Your task to perform on an android device: Open CNN.com Image 0: 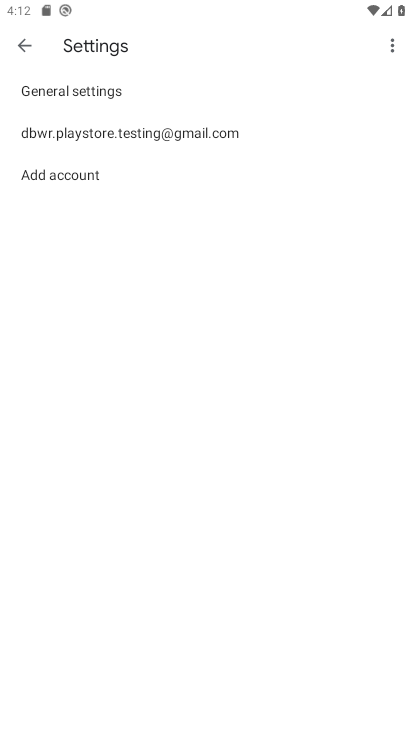
Step 0: press home button
Your task to perform on an android device: Open CNN.com Image 1: 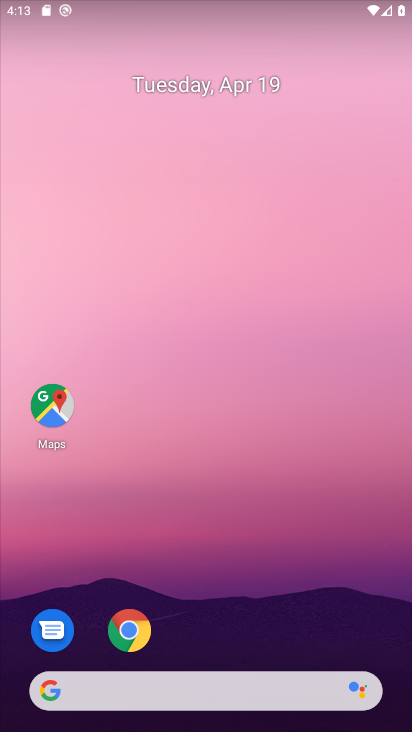
Step 1: click (120, 631)
Your task to perform on an android device: Open CNN.com Image 2: 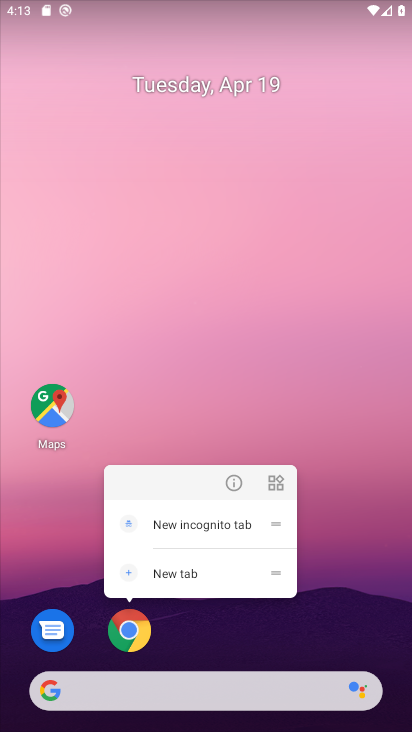
Step 2: click (131, 637)
Your task to perform on an android device: Open CNN.com Image 3: 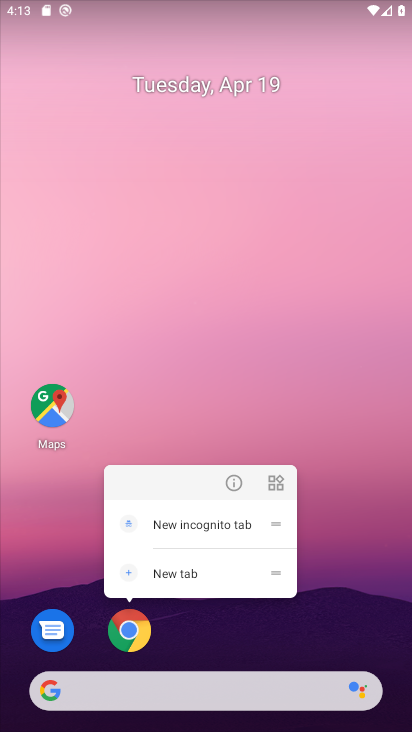
Step 3: click (149, 627)
Your task to perform on an android device: Open CNN.com Image 4: 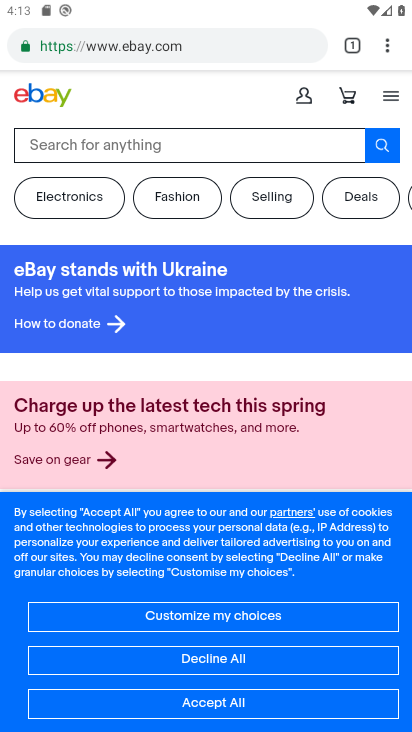
Step 4: click (131, 44)
Your task to perform on an android device: Open CNN.com Image 5: 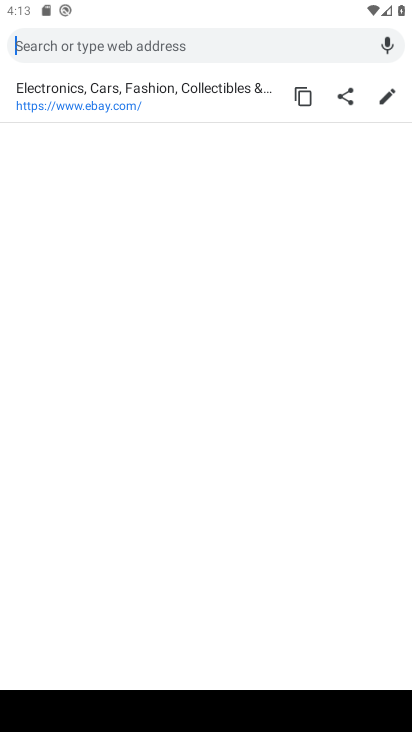
Step 5: type "CNN.com"
Your task to perform on an android device: Open CNN.com Image 6: 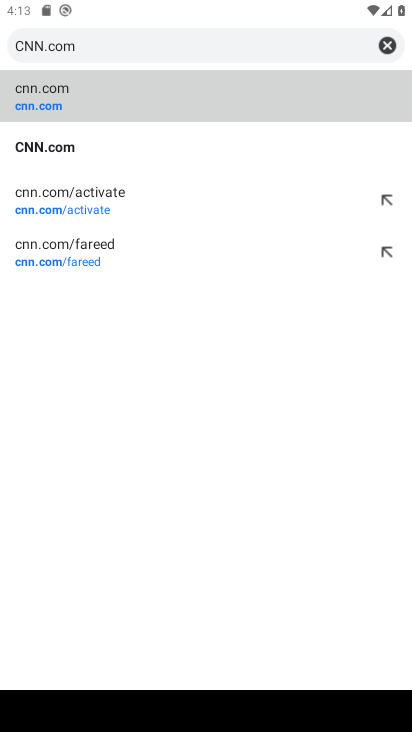
Step 6: click (32, 151)
Your task to perform on an android device: Open CNN.com Image 7: 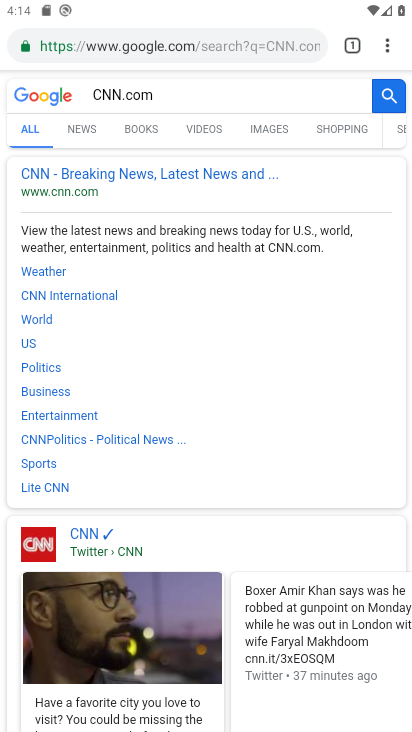
Step 7: task complete